Your task to perform on an android device: set the timer Image 0: 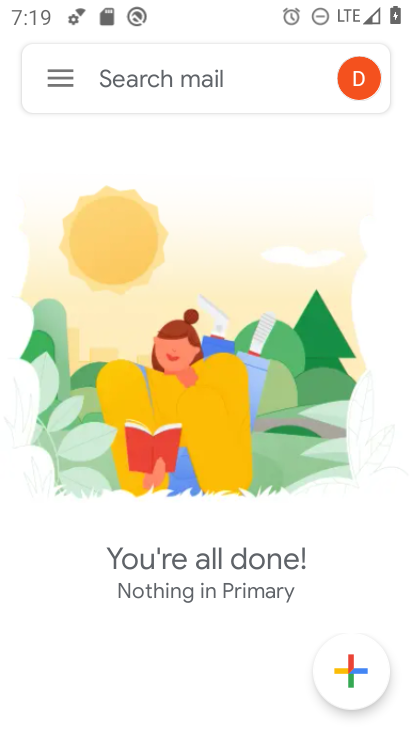
Step 0: press home button
Your task to perform on an android device: set the timer Image 1: 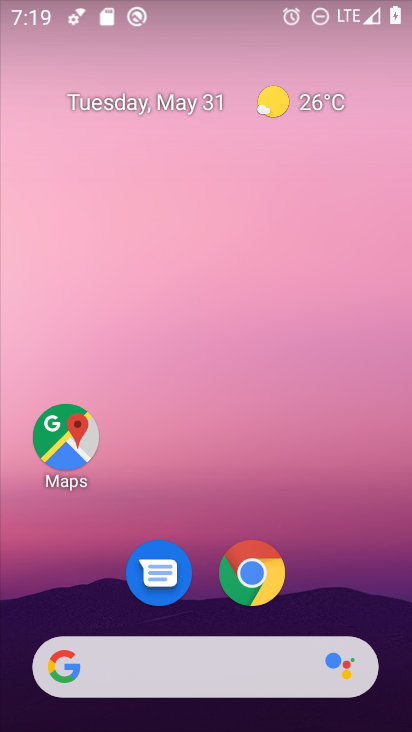
Step 1: drag from (403, 641) to (294, 72)
Your task to perform on an android device: set the timer Image 2: 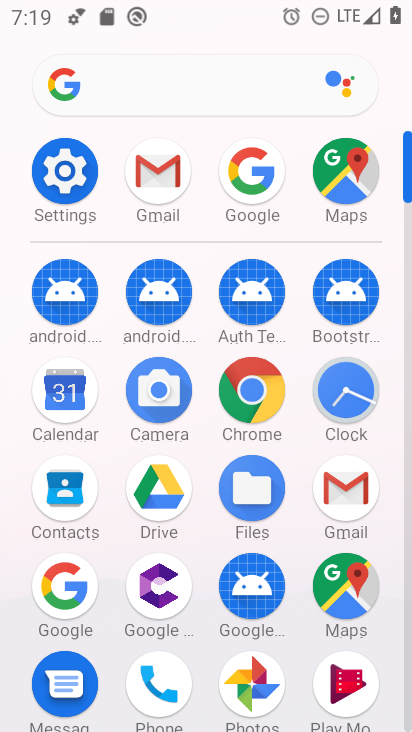
Step 2: click (361, 378)
Your task to perform on an android device: set the timer Image 3: 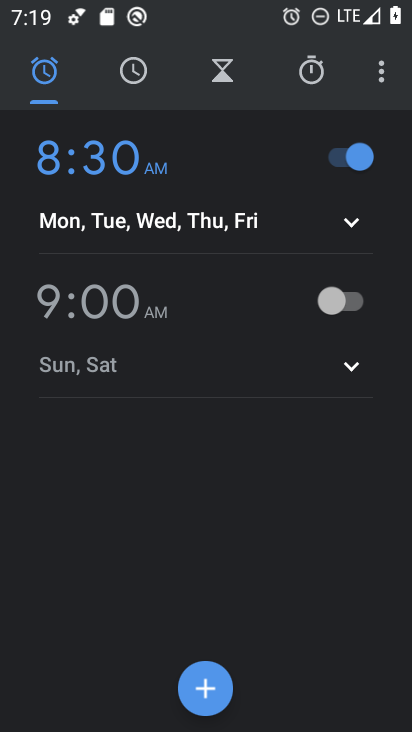
Step 3: click (374, 73)
Your task to perform on an android device: set the timer Image 4: 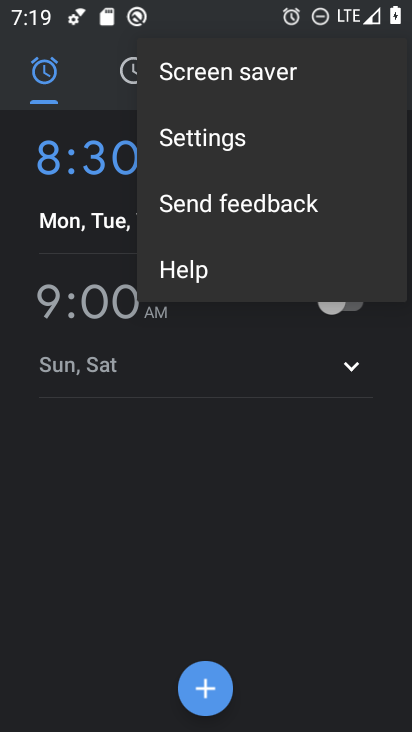
Step 4: click (204, 162)
Your task to perform on an android device: set the timer Image 5: 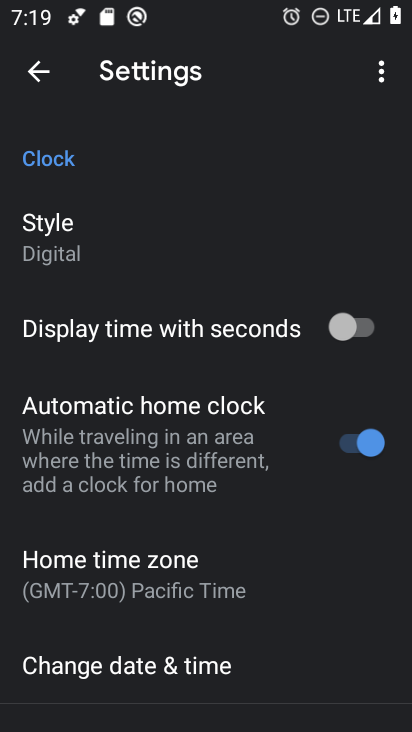
Step 5: click (190, 589)
Your task to perform on an android device: set the timer Image 6: 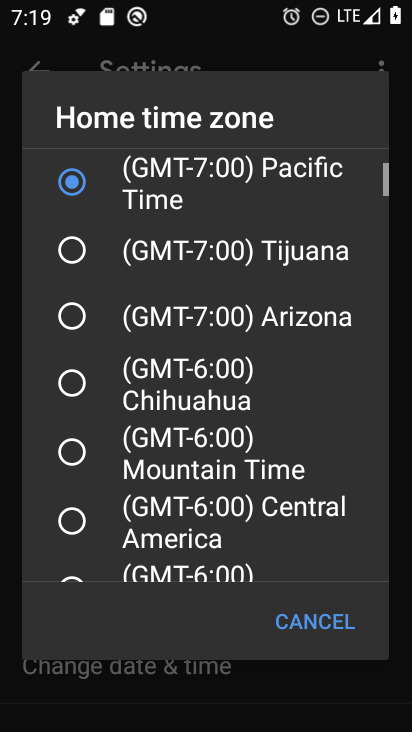
Step 6: click (156, 388)
Your task to perform on an android device: set the timer Image 7: 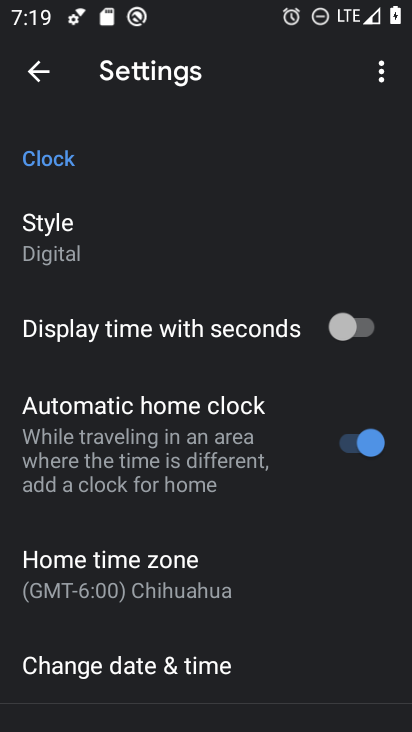
Step 7: task complete